Your task to perform on an android device: Open display settings Image 0: 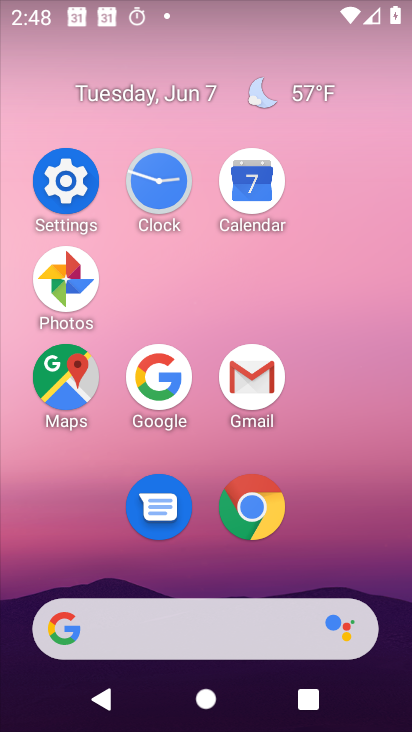
Step 0: click (71, 168)
Your task to perform on an android device: Open display settings Image 1: 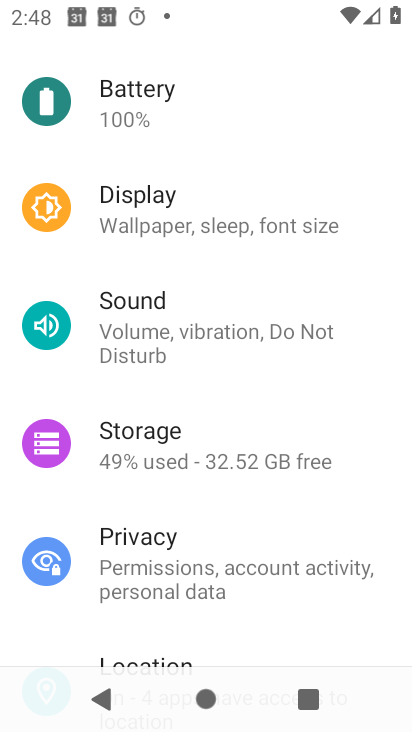
Step 1: click (235, 259)
Your task to perform on an android device: Open display settings Image 2: 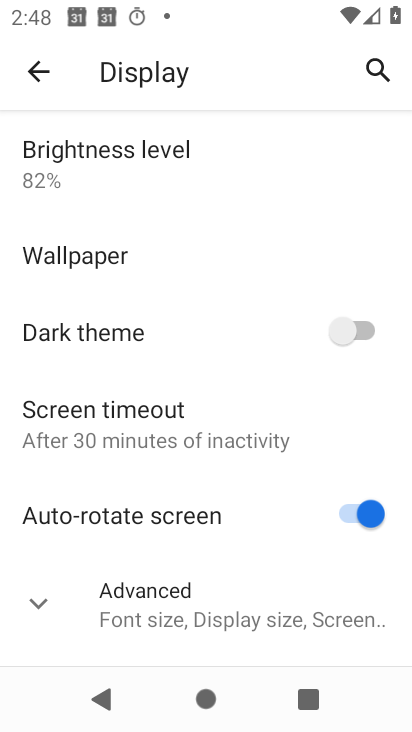
Step 2: task complete